Your task to perform on an android device: turn on sleep mode Image 0: 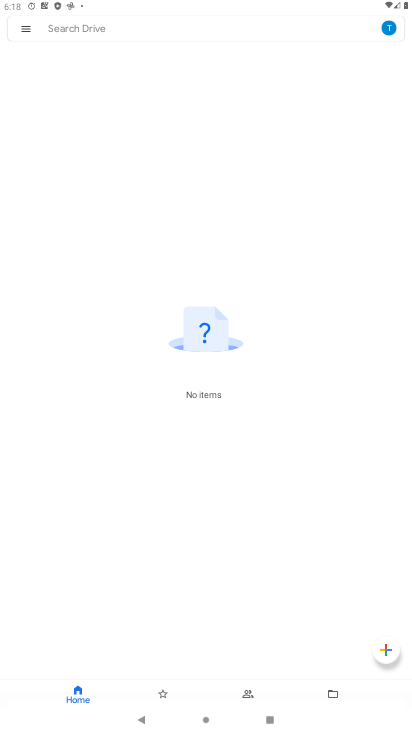
Step 0: press home button
Your task to perform on an android device: turn on sleep mode Image 1: 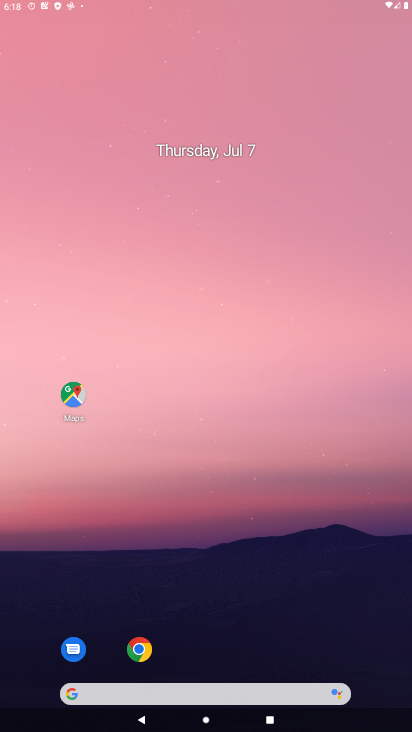
Step 1: drag from (383, 679) to (190, 23)
Your task to perform on an android device: turn on sleep mode Image 2: 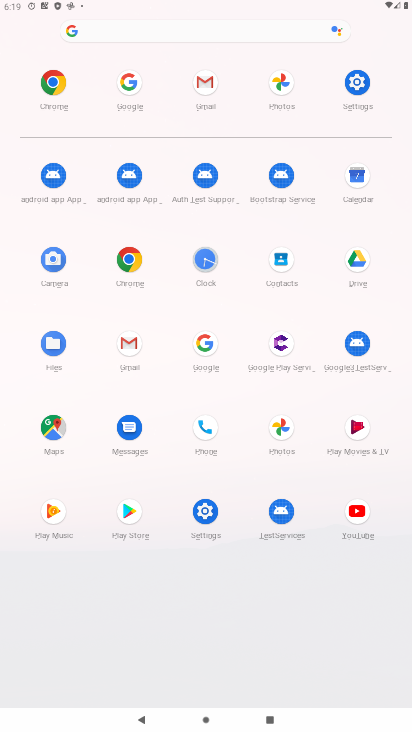
Step 2: click (356, 83)
Your task to perform on an android device: turn on sleep mode Image 3: 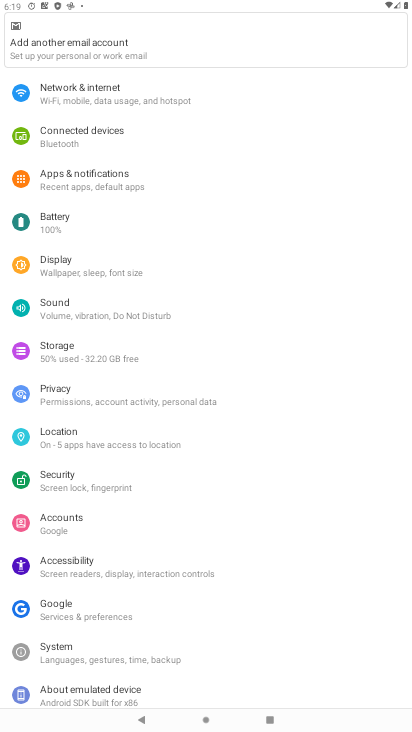
Step 3: task complete